Your task to perform on an android device: change the clock style Image 0: 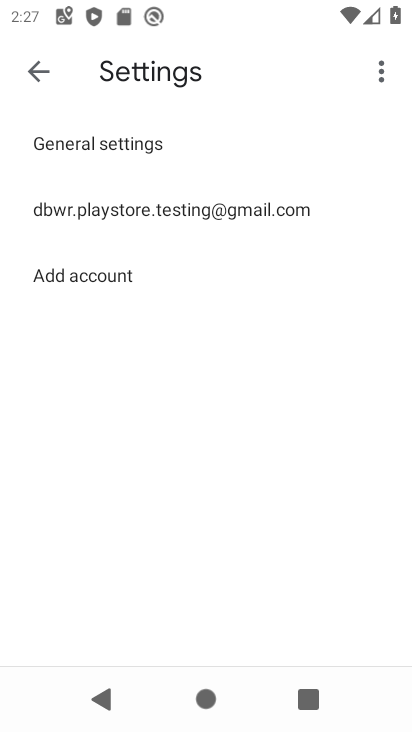
Step 0: press home button
Your task to perform on an android device: change the clock style Image 1: 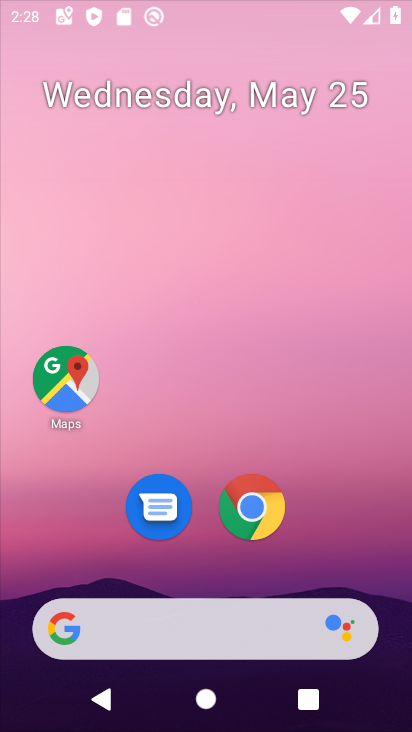
Step 1: drag from (178, 607) to (257, 199)
Your task to perform on an android device: change the clock style Image 2: 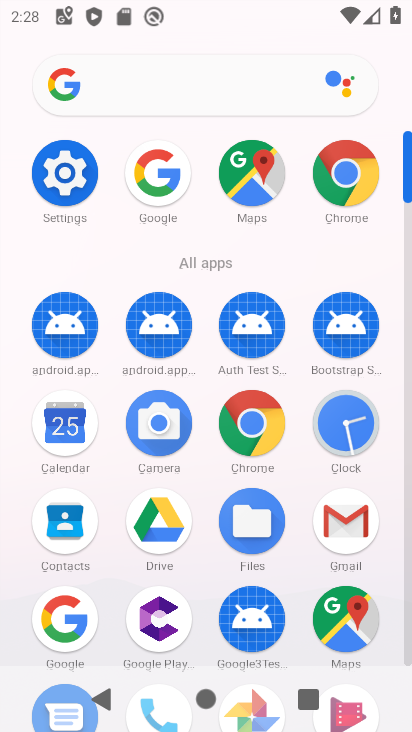
Step 2: drag from (184, 460) to (181, 294)
Your task to perform on an android device: change the clock style Image 3: 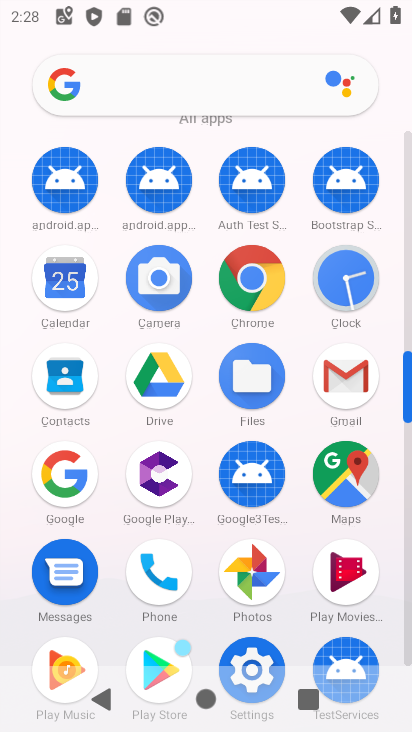
Step 3: click (346, 286)
Your task to perform on an android device: change the clock style Image 4: 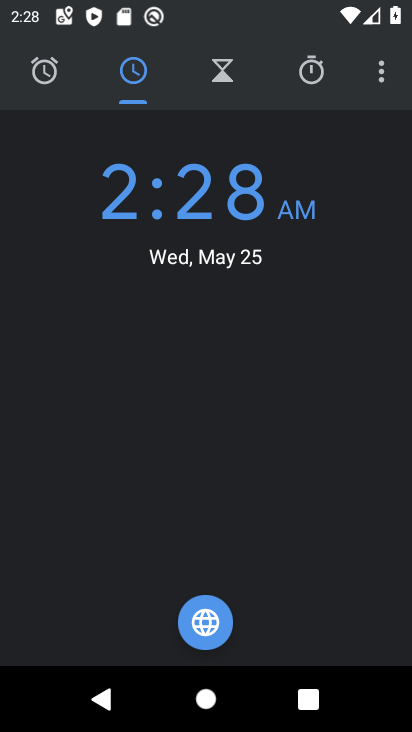
Step 4: click (388, 84)
Your task to perform on an android device: change the clock style Image 5: 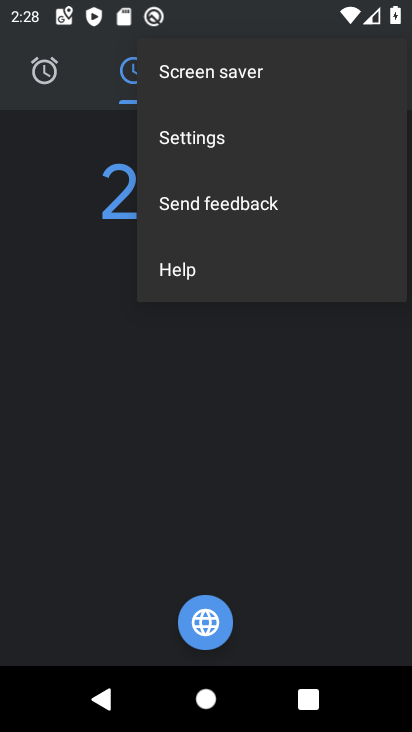
Step 5: click (231, 144)
Your task to perform on an android device: change the clock style Image 6: 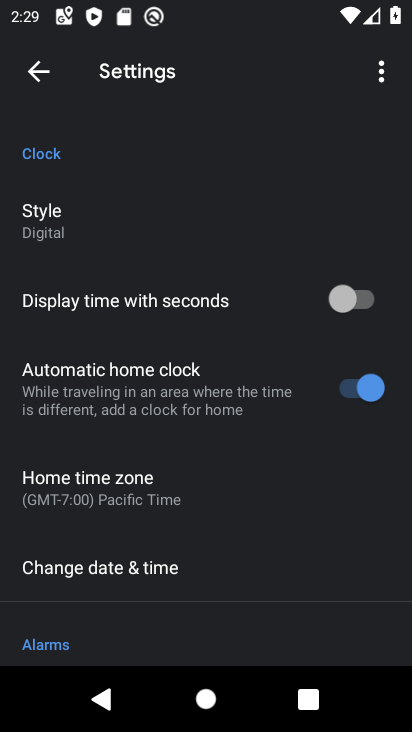
Step 6: click (84, 230)
Your task to perform on an android device: change the clock style Image 7: 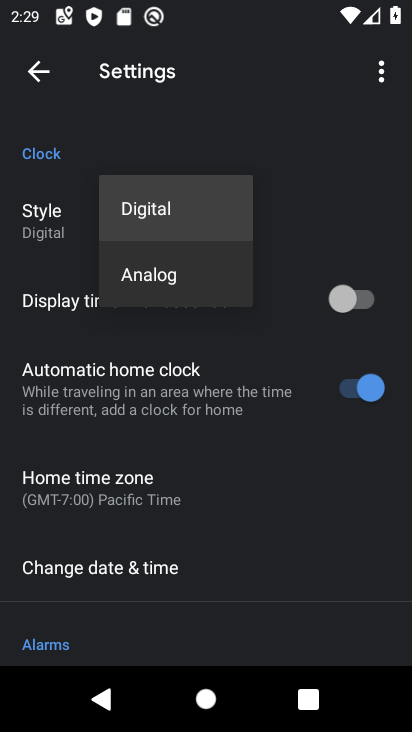
Step 7: click (174, 267)
Your task to perform on an android device: change the clock style Image 8: 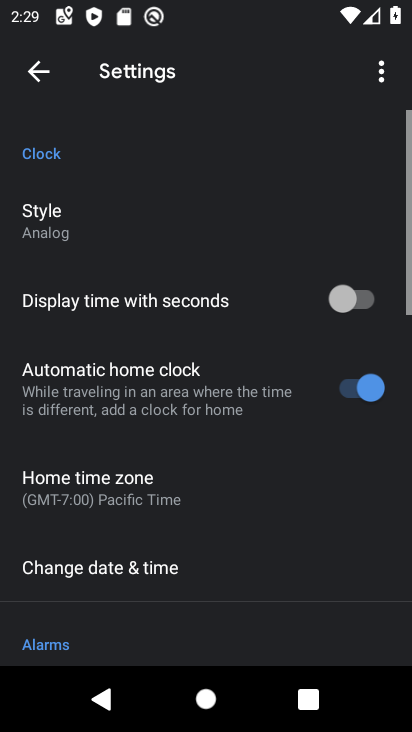
Step 8: task complete